Your task to perform on an android device: open a new tab in the chrome app Image 0: 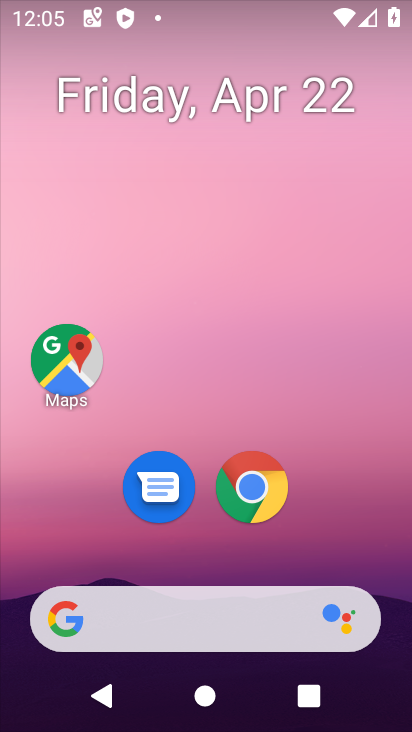
Step 0: click (266, 490)
Your task to perform on an android device: open a new tab in the chrome app Image 1: 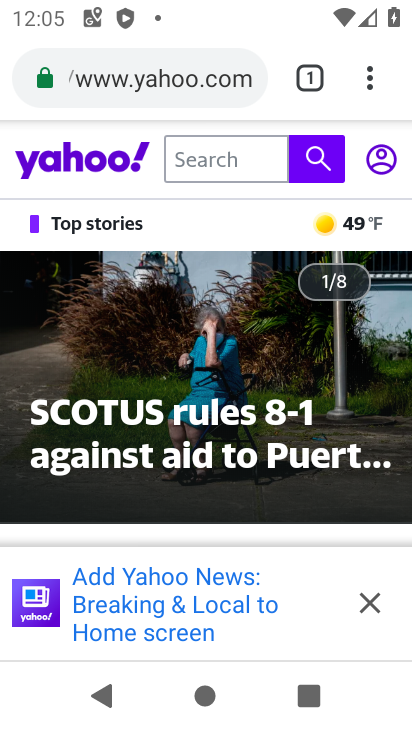
Step 1: task complete